Your task to perform on an android device: Show me recent news Image 0: 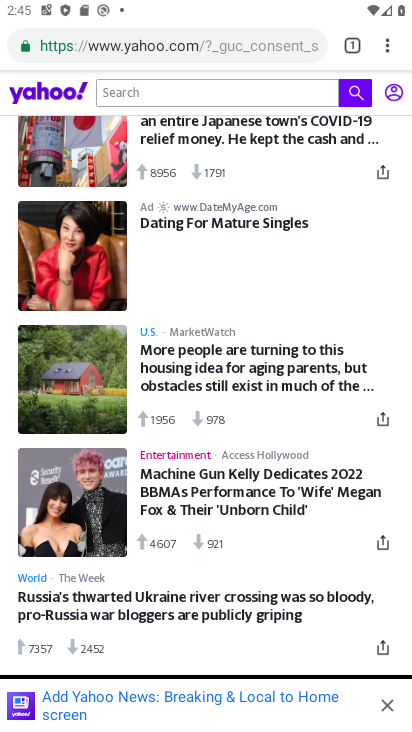
Step 0: press home button
Your task to perform on an android device: Show me recent news Image 1: 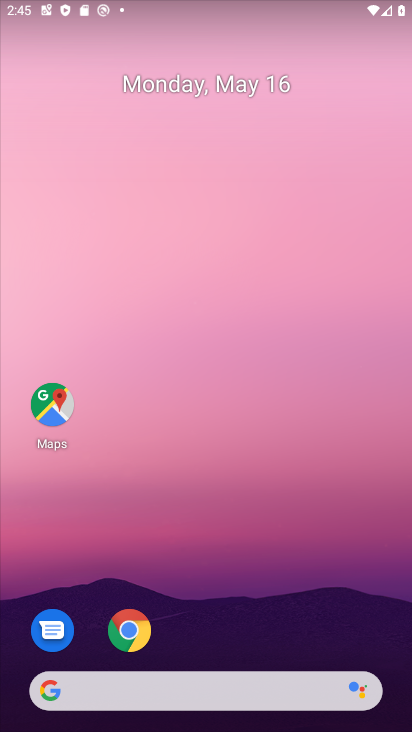
Step 1: task complete